Your task to perform on an android device: turn off translation in the chrome app Image 0: 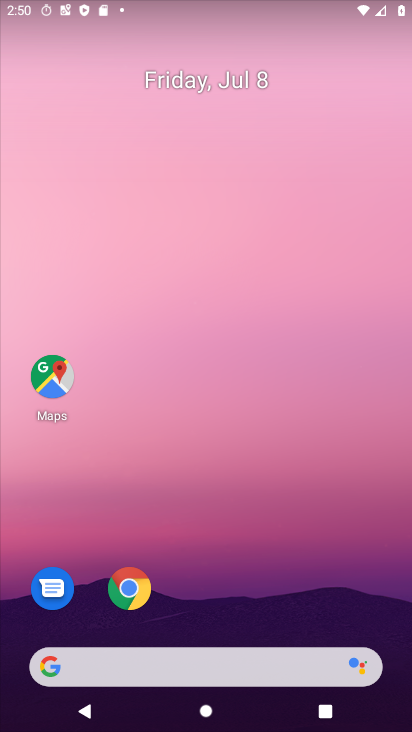
Step 0: press home button
Your task to perform on an android device: turn off translation in the chrome app Image 1: 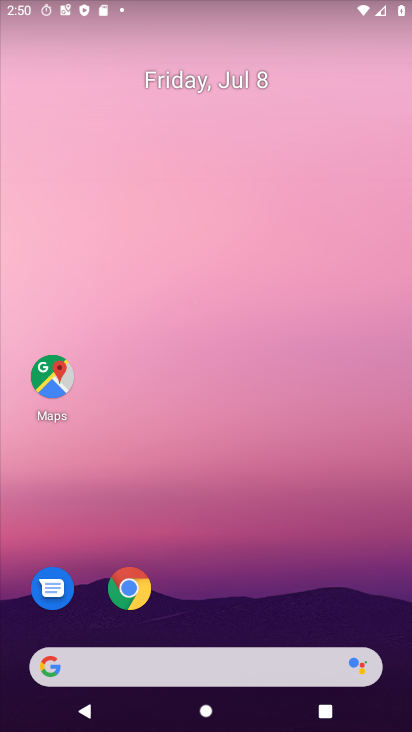
Step 1: drag from (249, 631) to (332, 118)
Your task to perform on an android device: turn off translation in the chrome app Image 2: 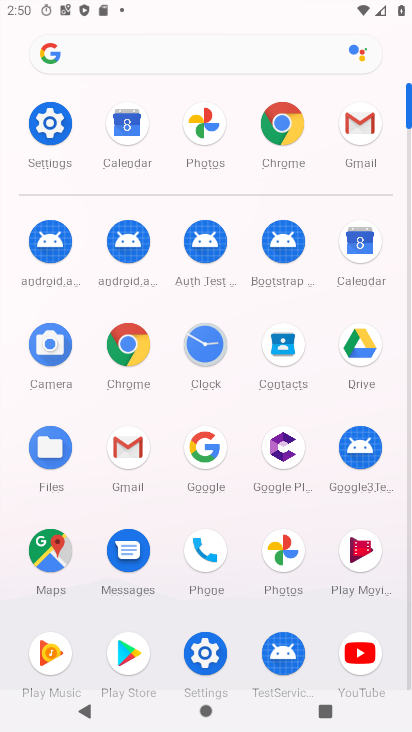
Step 2: click (290, 127)
Your task to perform on an android device: turn off translation in the chrome app Image 3: 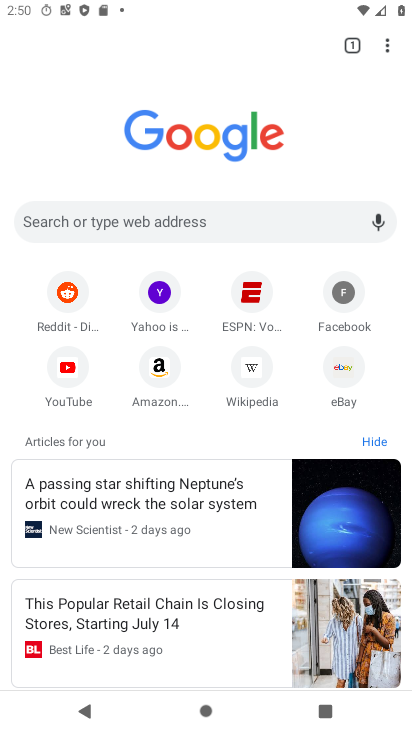
Step 3: drag from (397, 42) to (223, 375)
Your task to perform on an android device: turn off translation in the chrome app Image 4: 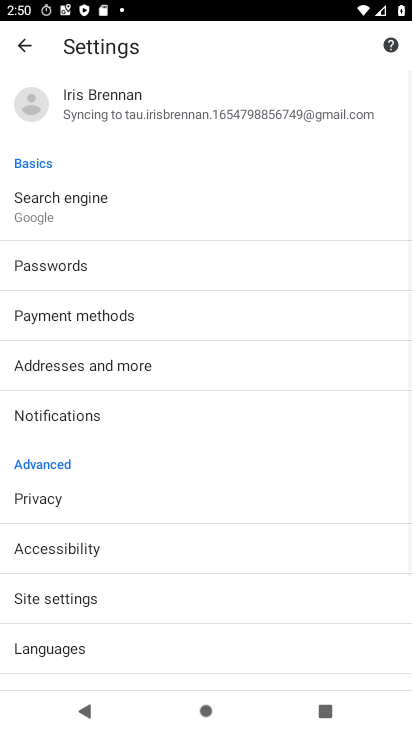
Step 4: click (53, 647)
Your task to perform on an android device: turn off translation in the chrome app Image 5: 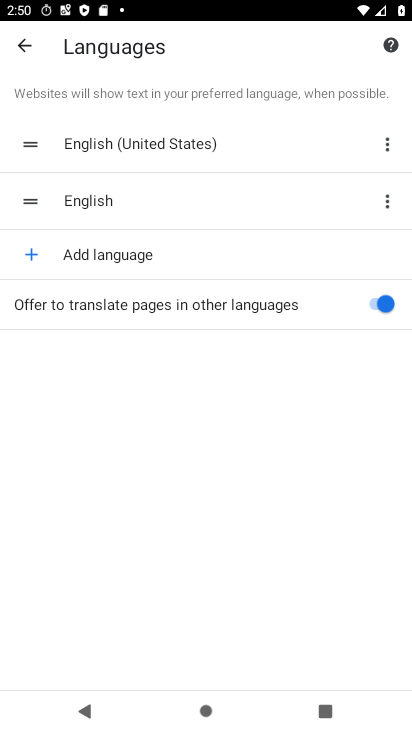
Step 5: click (384, 305)
Your task to perform on an android device: turn off translation in the chrome app Image 6: 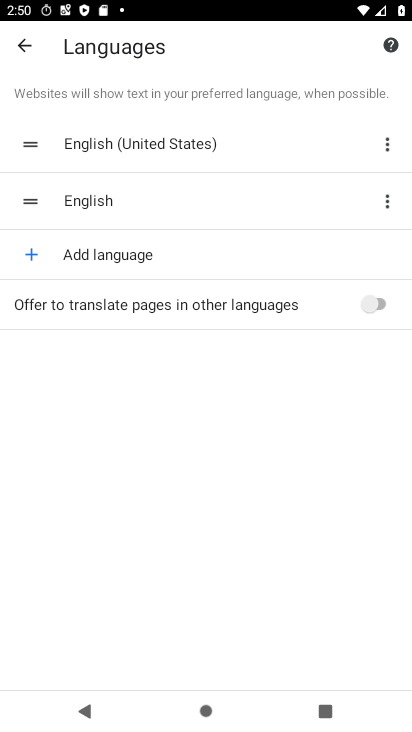
Step 6: task complete